Your task to perform on an android device: toggle location history Image 0: 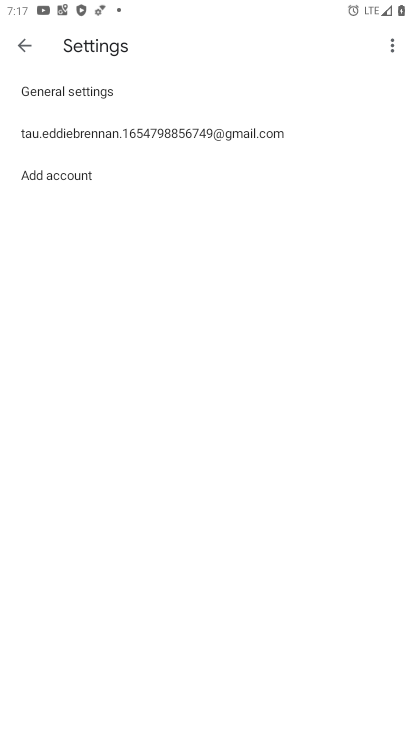
Step 0: press home button
Your task to perform on an android device: toggle location history Image 1: 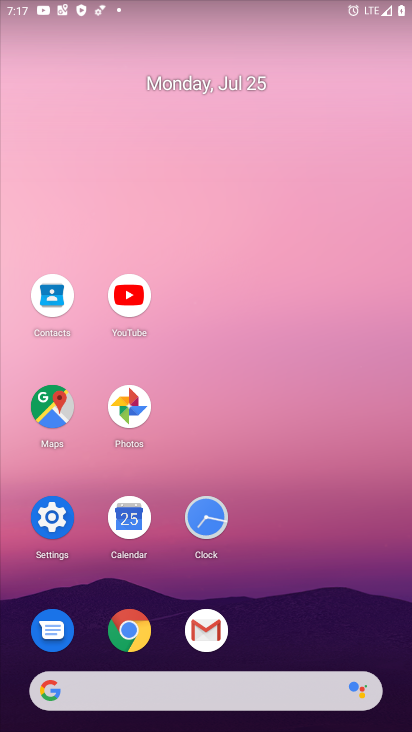
Step 1: click (42, 408)
Your task to perform on an android device: toggle location history Image 2: 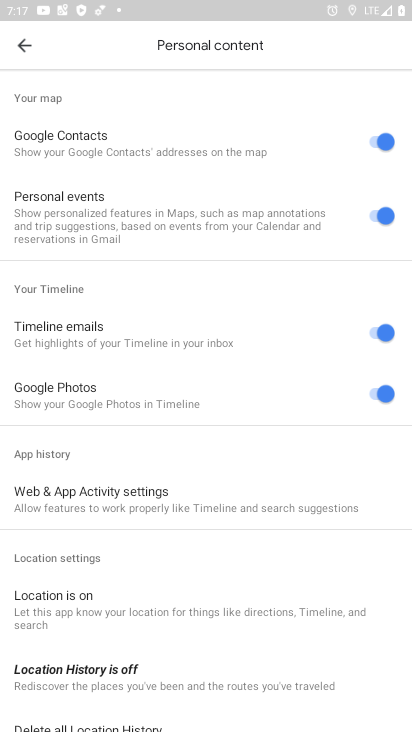
Step 2: click (86, 672)
Your task to perform on an android device: toggle location history Image 3: 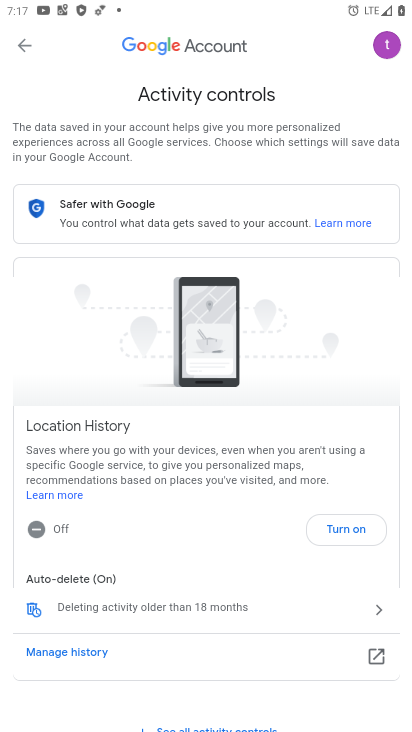
Step 3: click (345, 527)
Your task to perform on an android device: toggle location history Image 4: 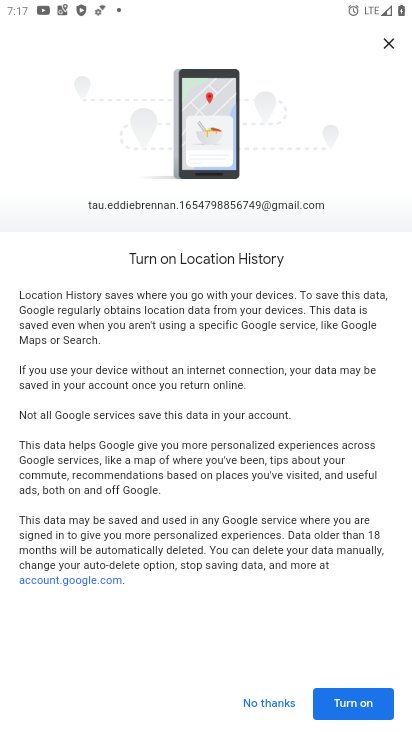
Step 4: click (353, 704)
Your task to perform on an android device: toggle location history Image 5: 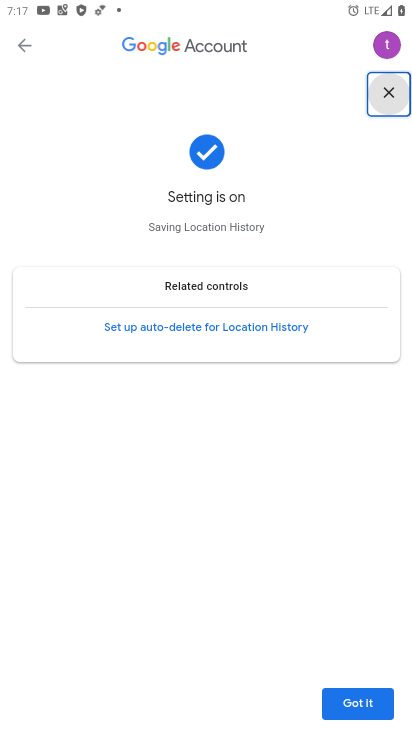
Step 5: click (353, 704)
Your task to perform on an android device: toggle location history Image 6: 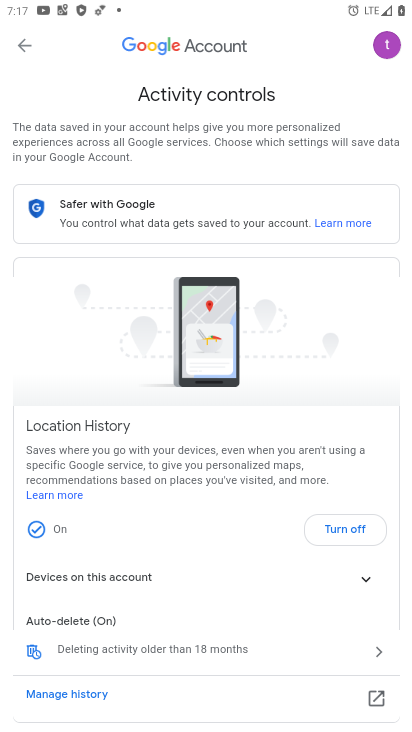
Step 6: task complete